Your task to perform on an android device: Open eBay Image 0: 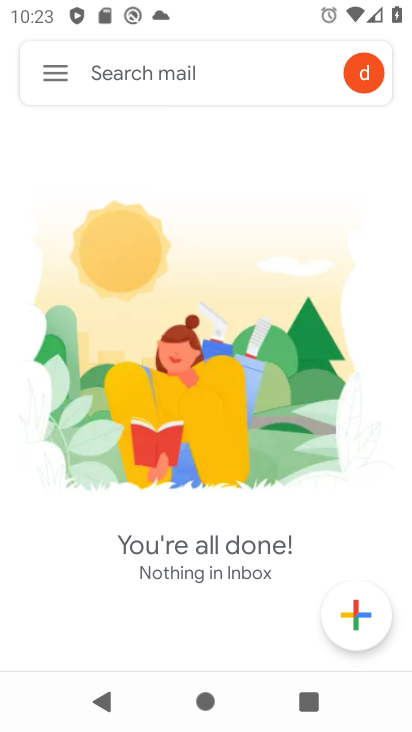
Step 0: press home button
Your task to perform on an android device: Open eBay Image 1: 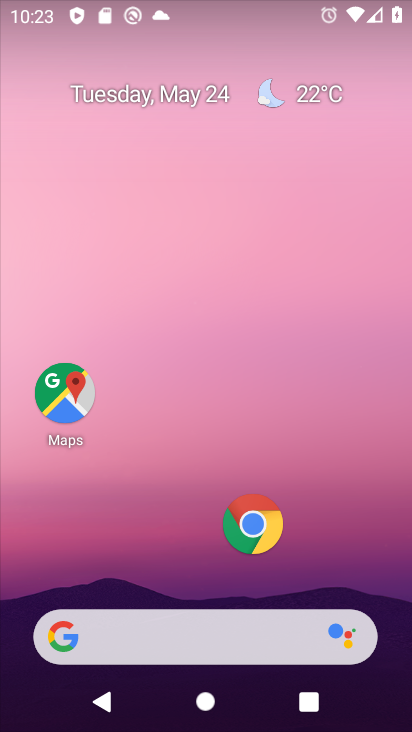
Step 1: click (270, 650)
Your task to perform on an android device: Open eBay Image 2: 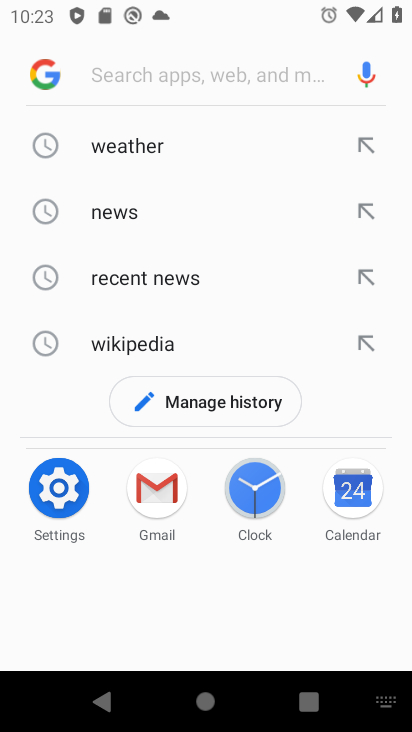
Step 2: type "ebay"
Your task to perform on an android device: Open eBay Image 3: 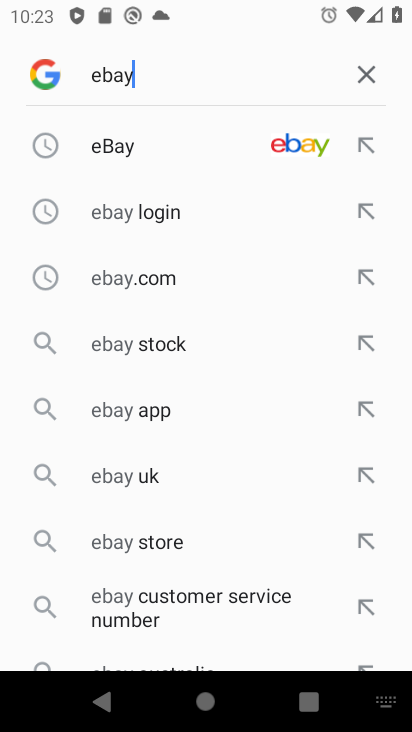
Step 3: click (120, 142)
Your task to perform on an android device: Open eBay Image 4: 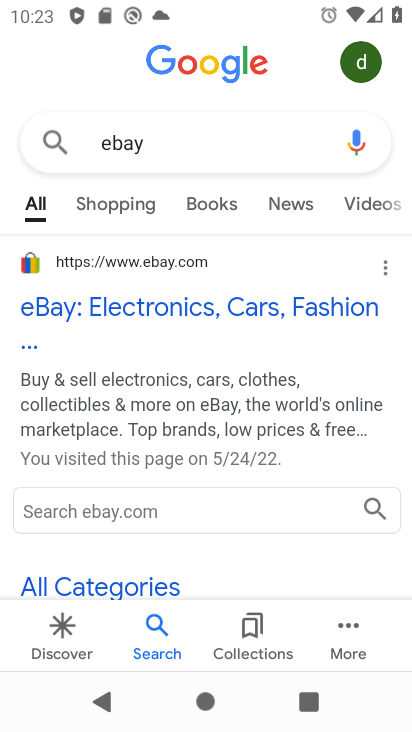
Step 4: click (47, 313)
Your task to perform on an android device: Open eBay Image 5: 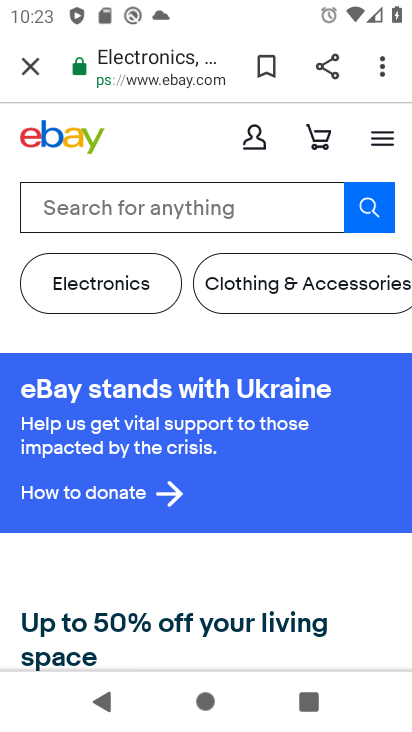
Step 5: task complete